Your task to perform on an android device: change the clock display to digital Image 0: 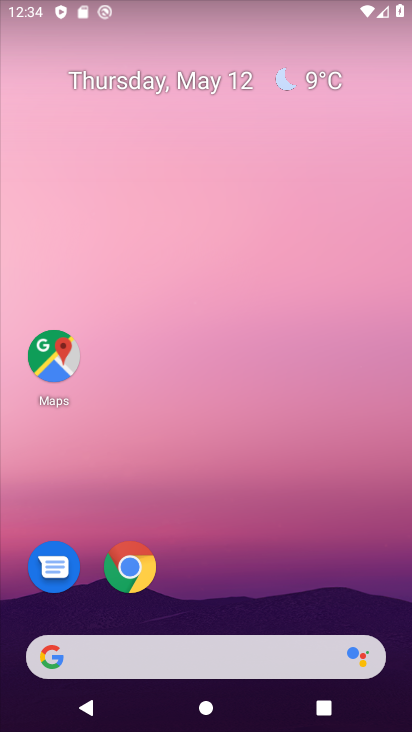
Step 0: drag from (188, 620) to (346, 98)
Your task to perform on an android device: change the clock display to digital Image 1: 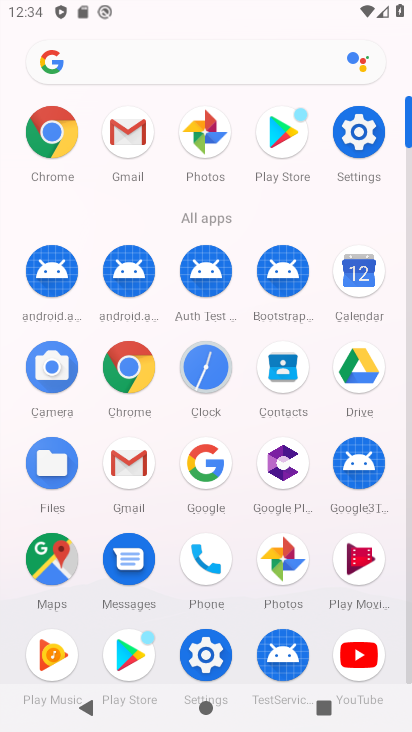
Step 1: click (196, 358)
Your task to perform on an android device: change the clock display to digital Image 2: 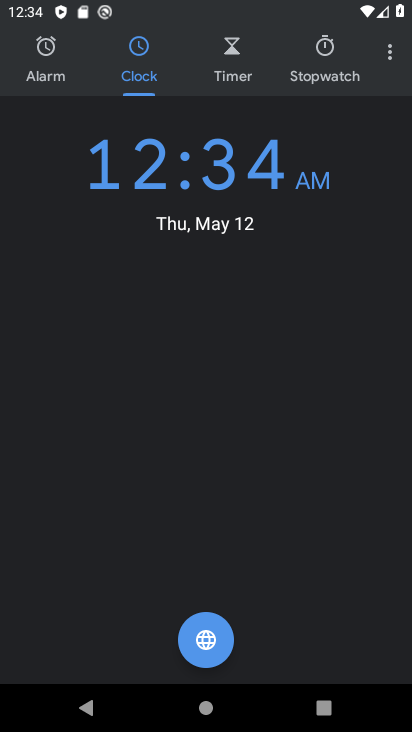
Step 2: click (382, 42)
Your task to perform on an android device: change the clock display to digital Image 3: 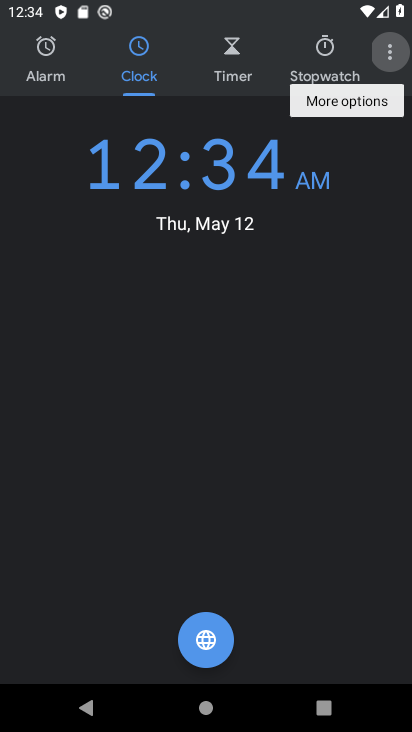
Step 3: click (382, 42)
Your task to perform on an android device: change the clock display to digital Image 4: 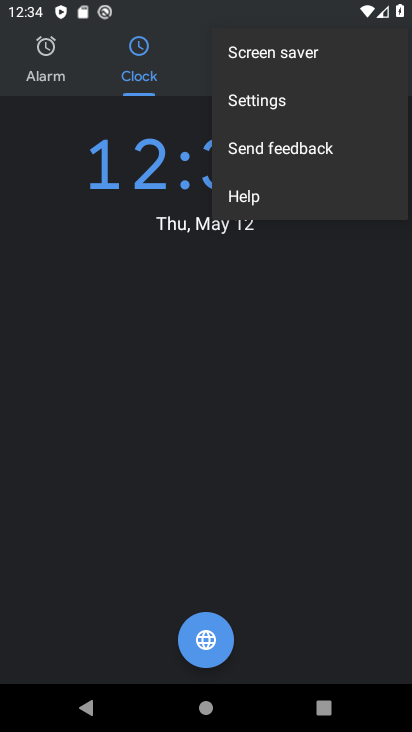
Step 4: click (336, 102)
Your task to perform on an android device: change the clock display to digital Image 5: 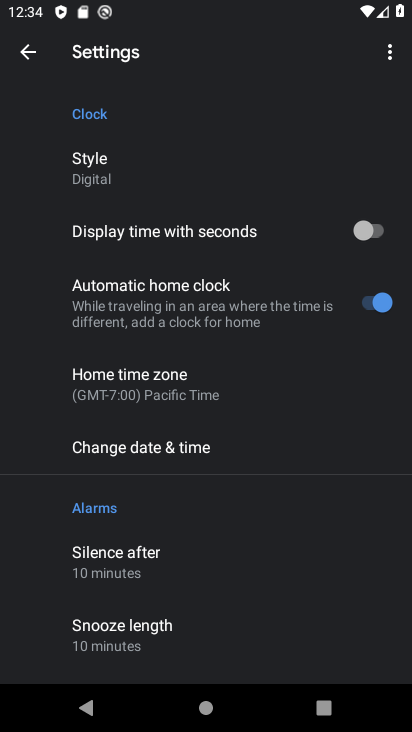
Step 5: task complete